Your task to perform on an android device: turn off smart reply in the gmail app Image 0: 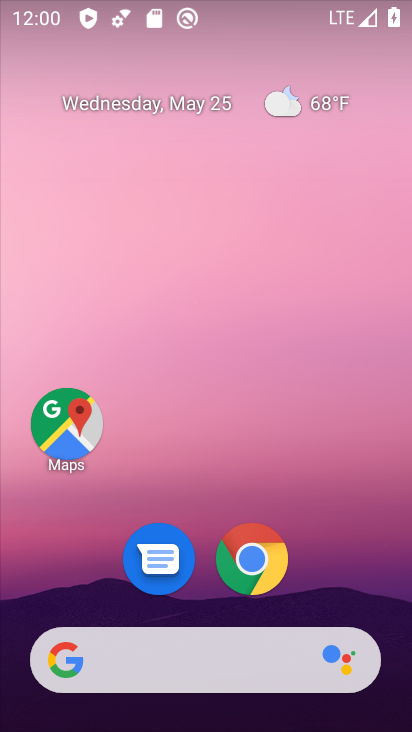
Step 0: drag from (397, 620) to (291, 42)
Your task to perform on an android device: turn off smart reply in the gmail app Image 1: 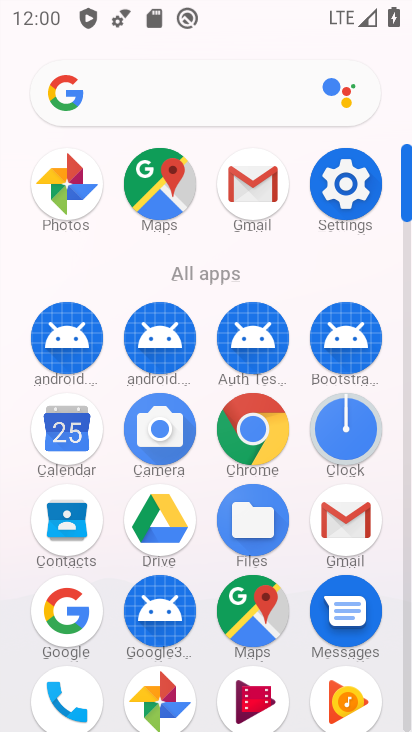
Step 1: click (407, 681)
Your task to perform on an android device: turn off smart reply in the gmail app Image 2: 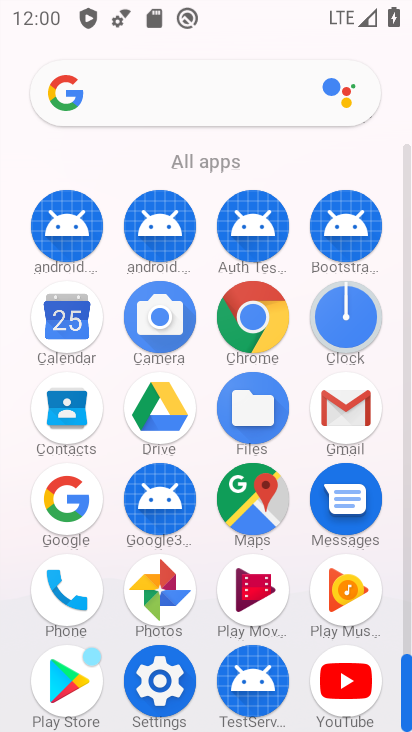
Step 2: click (342, 404)
Your task to perform on an android device: turn off smart reply in the gmail app Image 3: 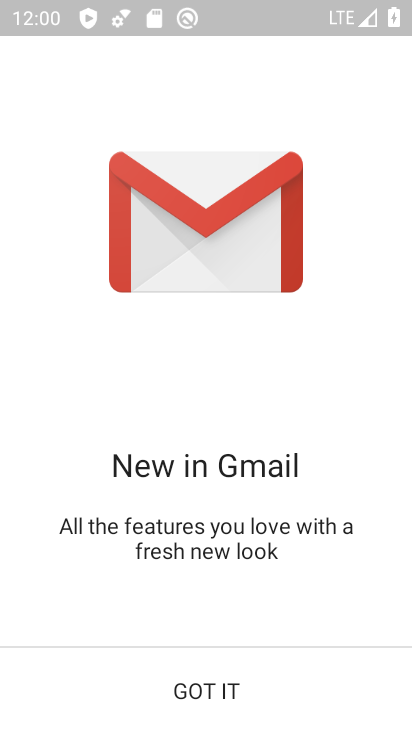
Step 3: click (190, 683)
Your task to perform on an android device: turn off smart reply in the gmail app Image 4: 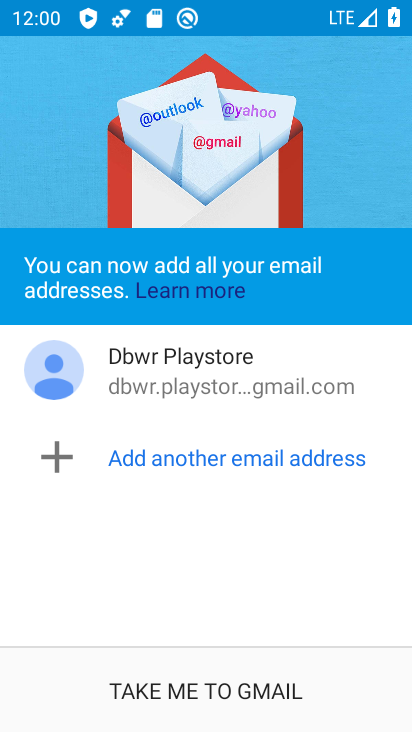
Step 4: click (188, 689)
Your task to perform on an android device: turn off smart reply in the gmail app Image 5: 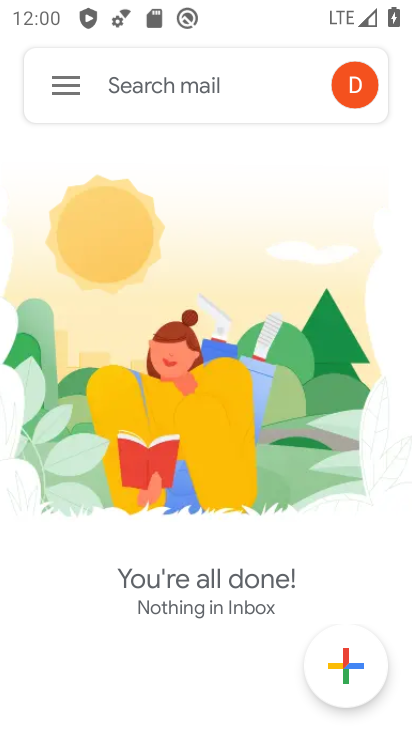
Step 5: click (71, 81)
Your task to perform on an android device: turn off smart reply in the gmail app Image 6: 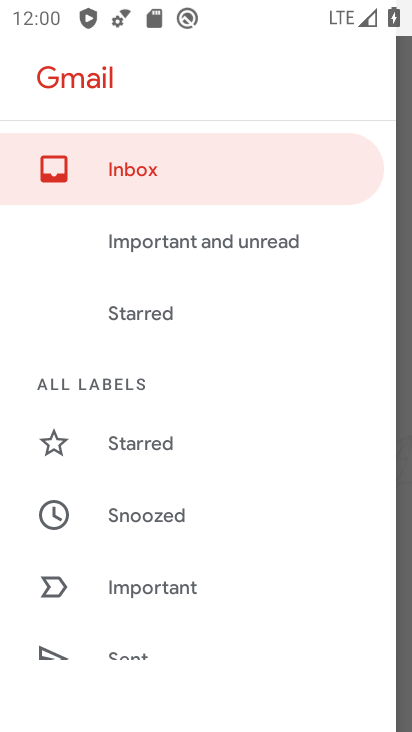
Step 6: drag from (250, 650) to (227, 176)
Your task to perform on an android device: turn off smart reply in the gmail app Image 7: 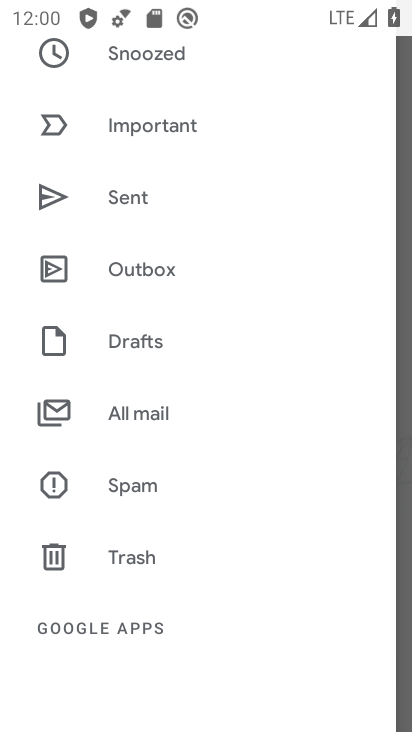
Step 7: drag from (207, 639) to (207, 270)
Your task to perform on an android device: turn off smart reply in the gmail app Image 8: 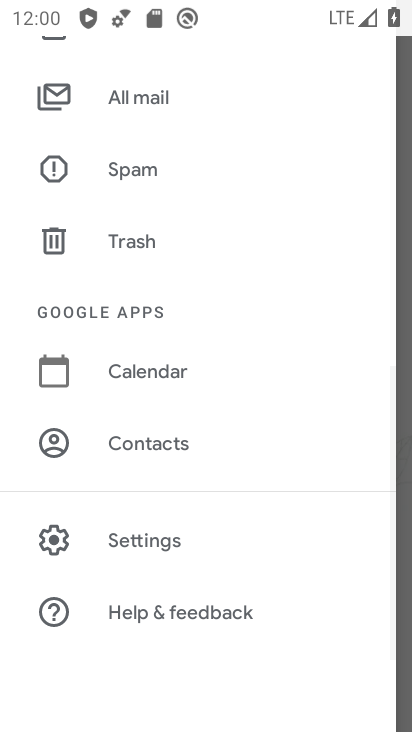
Step 8: click (127, 530)
Your task to perform on an android device: turn off smart reply in the gmail app Image 9: 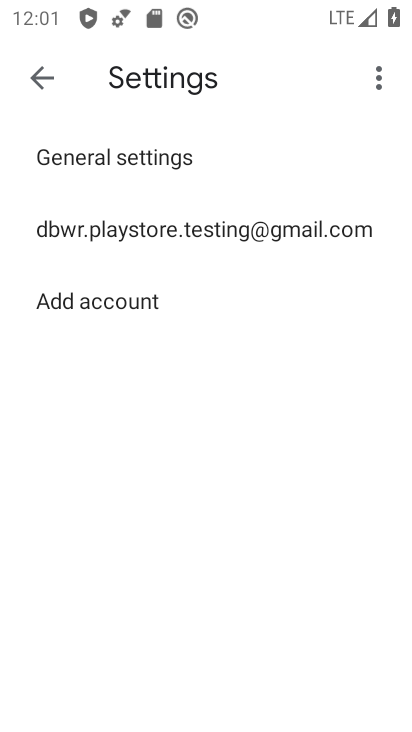
Step 9: click (166, 212)
Your task to perform on an android device: turn off smart reply in the gmail app Image 10: 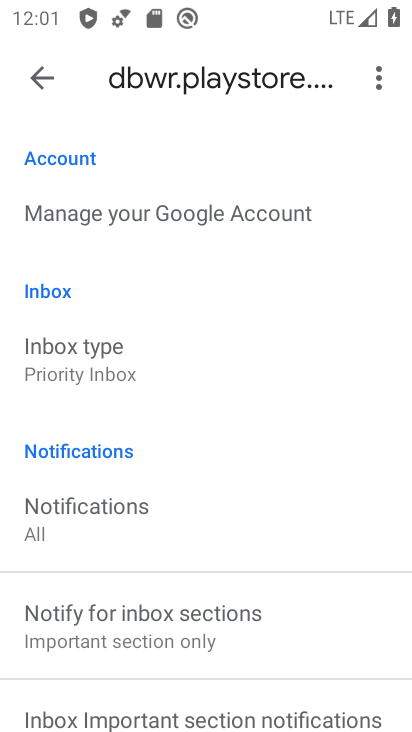
Step 10: drag from (252, 608) to (265, 258)
Your task to perform on an android device: turn off smart reply in the gmail app Image 11: 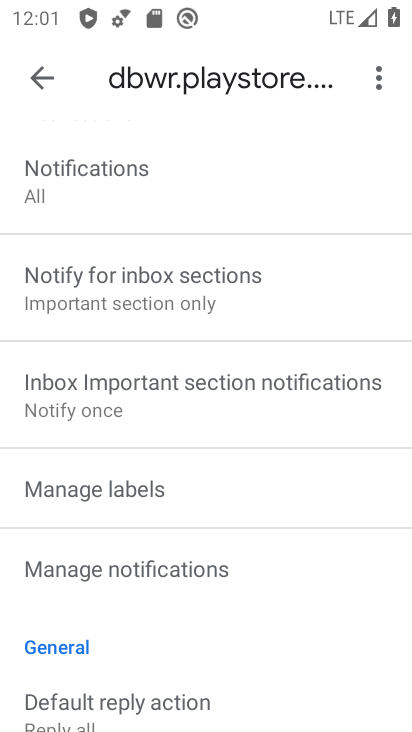
Step 11: drag from (281, 621) to (281, 446)
Your task to perform on an android device: turn off smart reply in the gmail app Image 12: 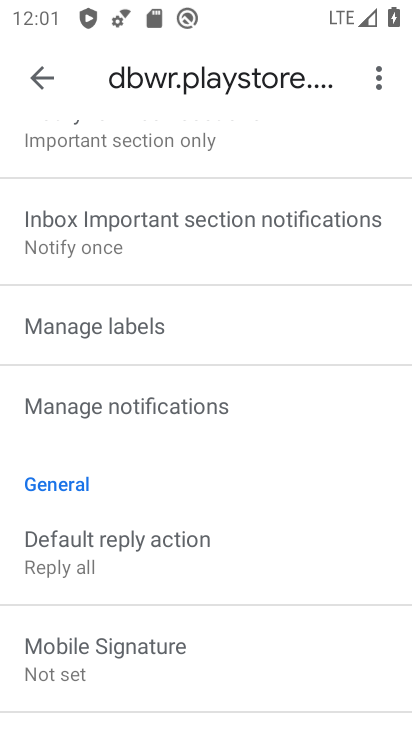
Step 12: drag from (289, 612) to (252, 117)
Your task to perform on an android device: turn off smart reply in the gmail app Image 13: 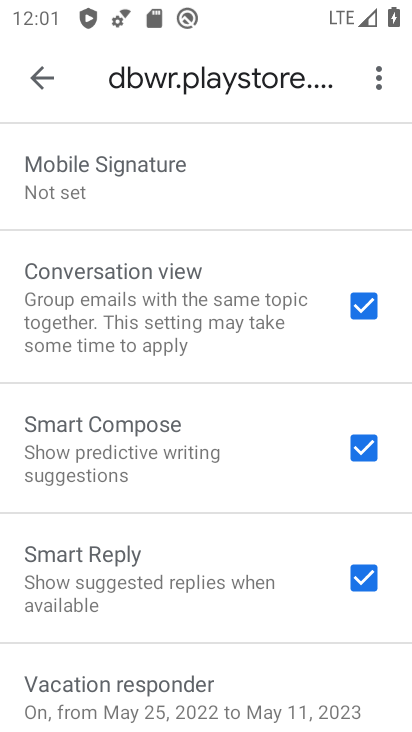
Step 13: click (362, 572)
Your task to perform on an android device: turn off smart reply in the gmail app Image 14: 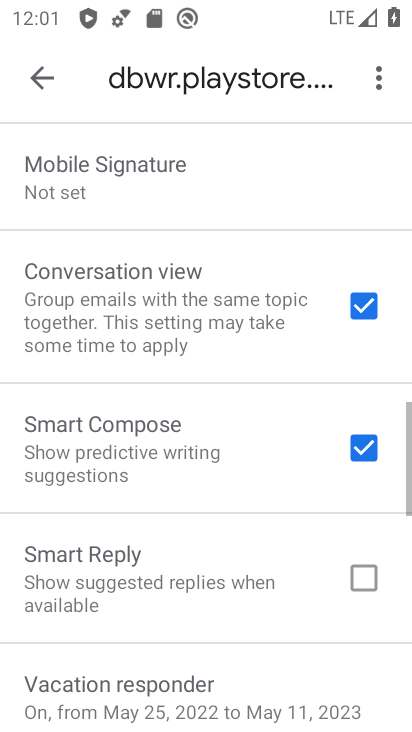
Step 14: task complete